Your task to perform on an android device: open app "TextNow: Call + Text Unlimited" (install if not already installed) Image 0: 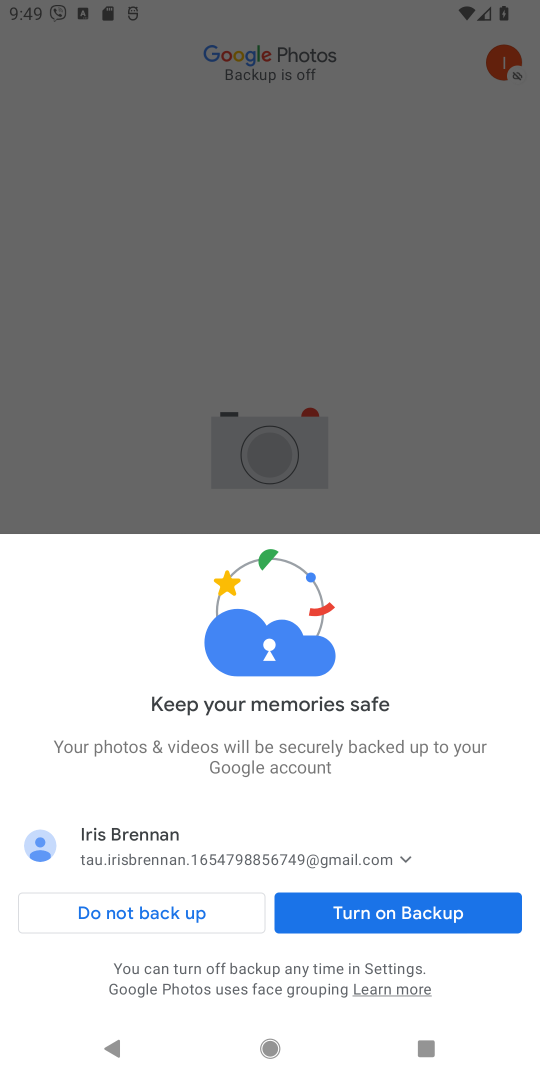
Step 0: press home button
Your task to perform on an android device: open app "TextNow: Call + Text Unlimited" (install if not already installed) Image 1: 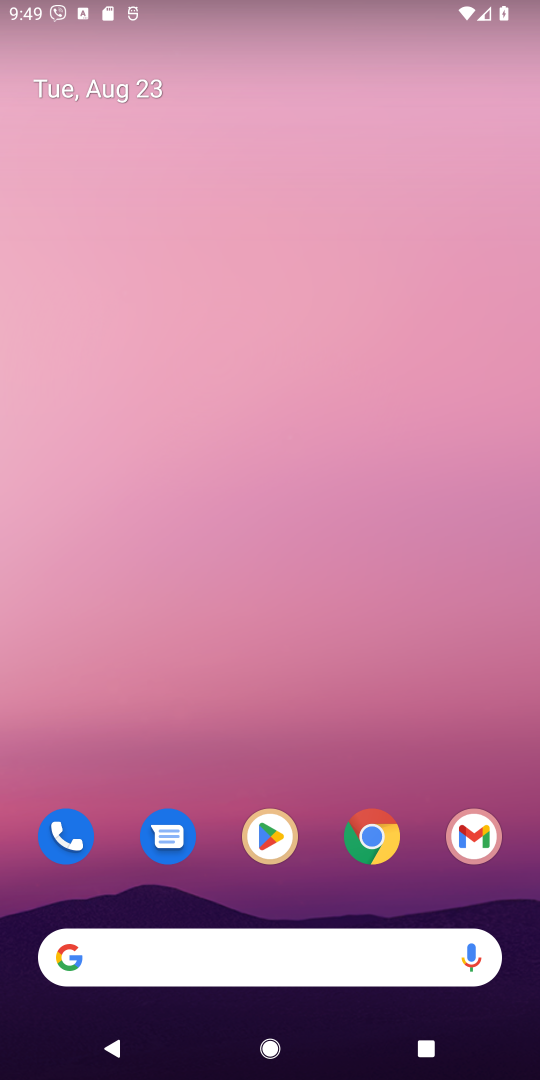
Step 1: click (266, 846)
Your task to perform on an android device: open app "TextNow: Call + Text Unlimited" (install if not already installed) Image 2: 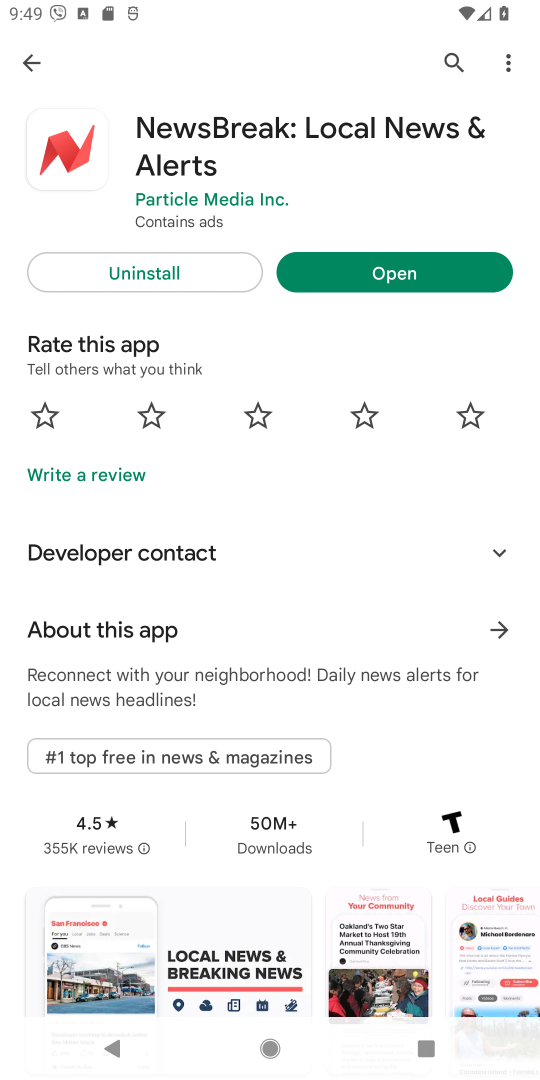
Step 2: click (461, 54)
Your task to perform on an android device: open app "TextNow: Call + Text Unlimited" (install if not already installed) Image 3: 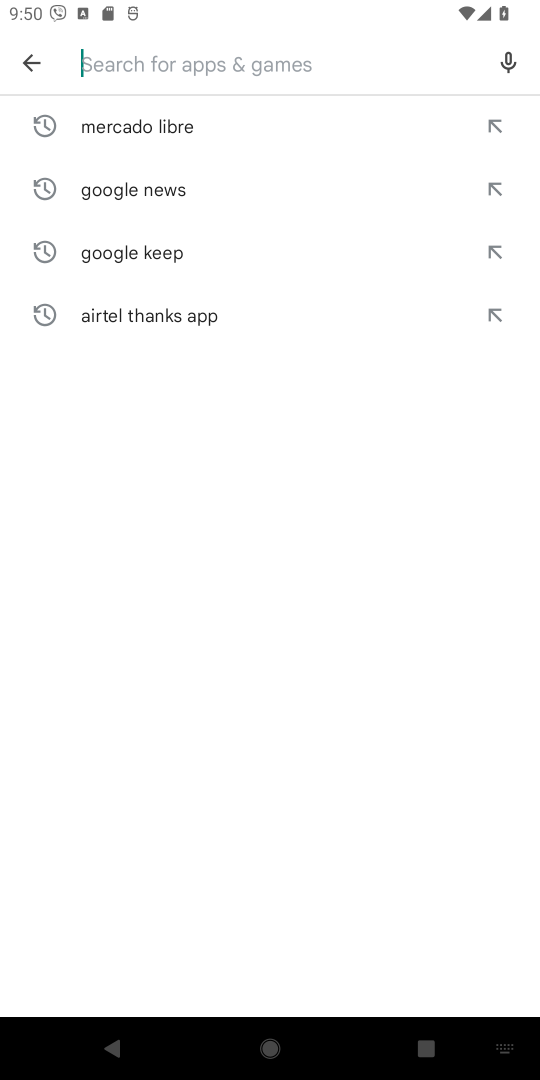
Step 3: type "TextNow: Call + Text Unlimited"
Your task to perform on an android device: open app "TextNow: Call + Text Unlimited" (install if not already installed) Image 4: 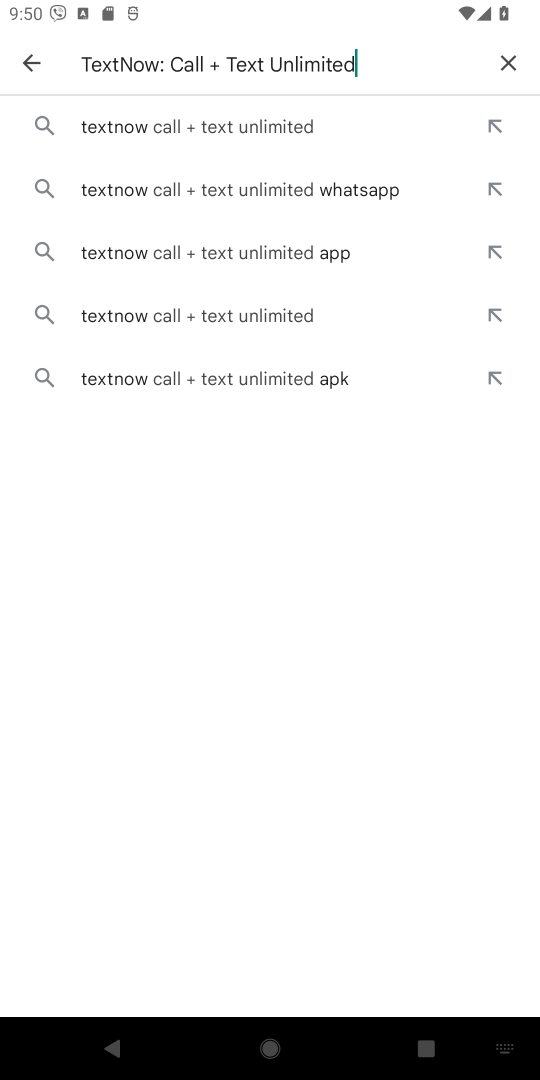
Step 4: click (191, 128)
Your task to perform on an android device: open app "TextNow: Call + Text Unlimited" (install if not already installed) Image 5: 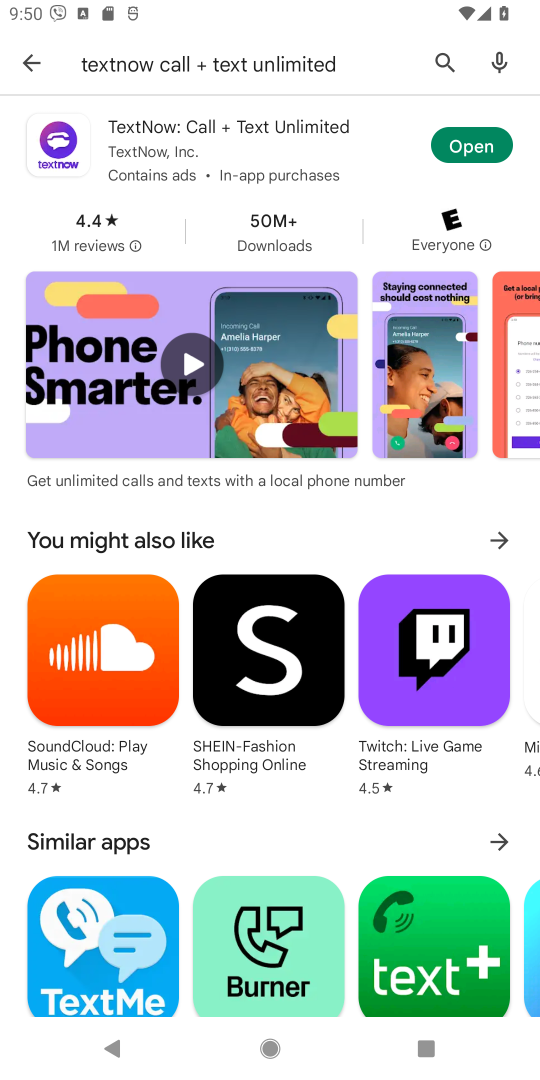
Step 5: click (480, 146)
Your task to perform on an android device: open app "TextNow: Call + Text Unlimited" (install if not already installed) Image 6: 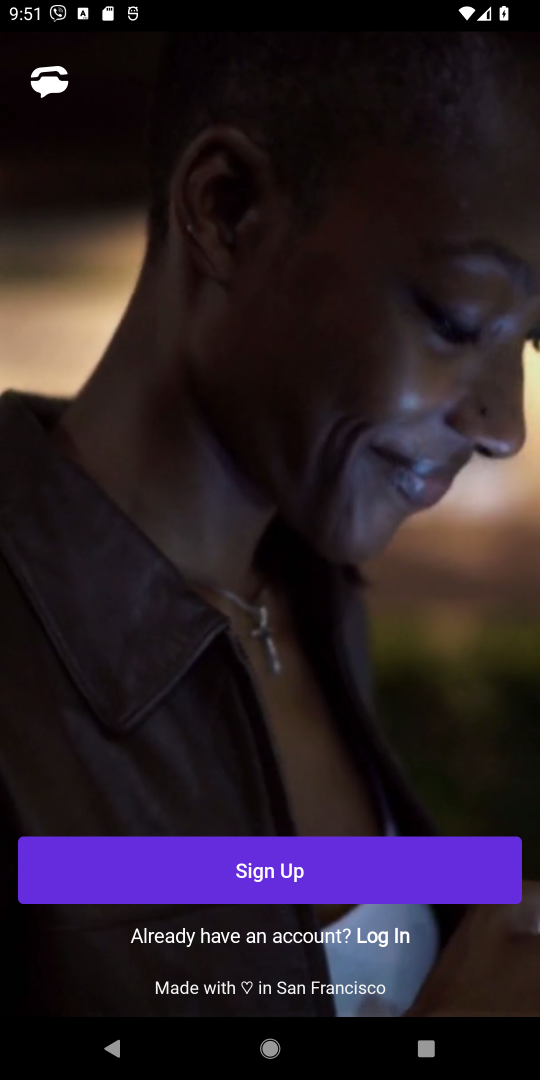
Step 6: task complete